Your task to perform on an android device: What's on my calendar today? Image 0: 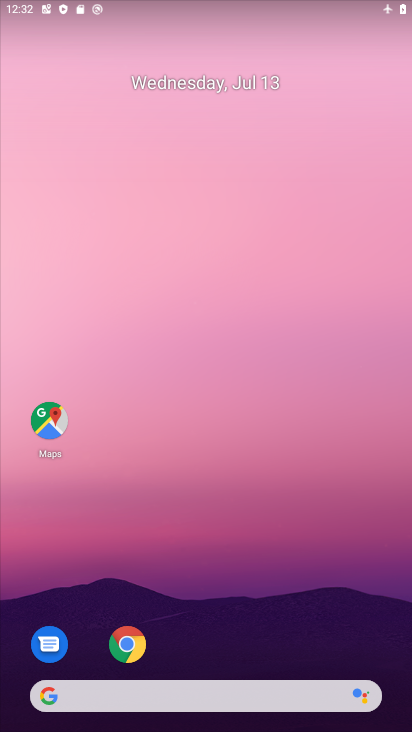
Step 0: drag from (267, 648) to (223, 170)
Your task to perform on an android device: What's on my calendar today? Image 1: 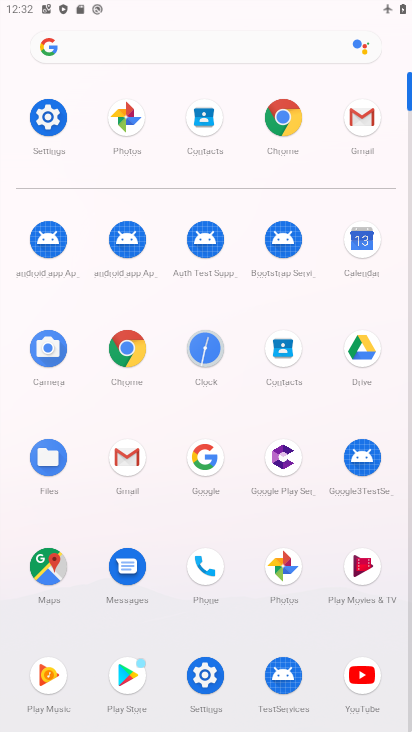
Step 1: click (365, 231)
Your task to perform on an android device: What's on my calendar today? Image 2: 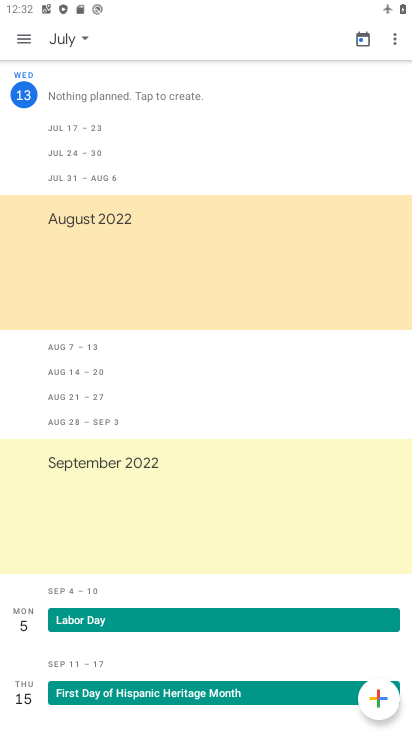
Step 2: click (103, 117)
Your task to perform on an android device: What's on my calendar today? Image 3: 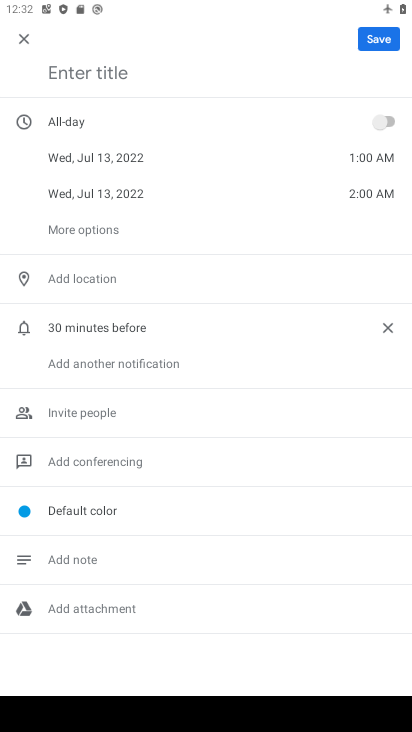
Step 3: click (27, 38)
Your task to perform on an android device: What's on my calendar today? Image 4: 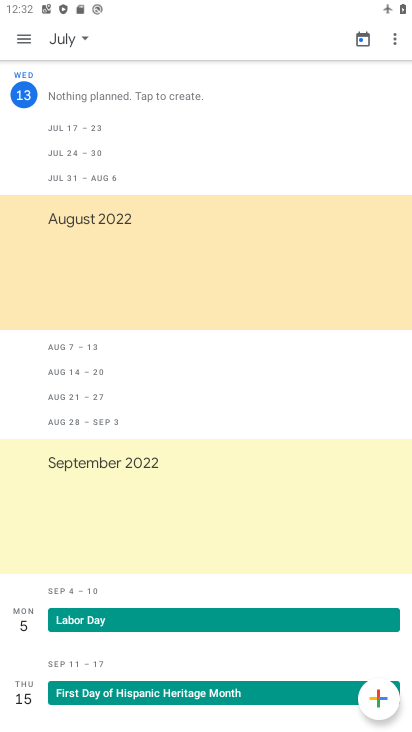
Step 4: click (34, 97)
Your task to perform on an android device: What's on my calendar today? Image 5: 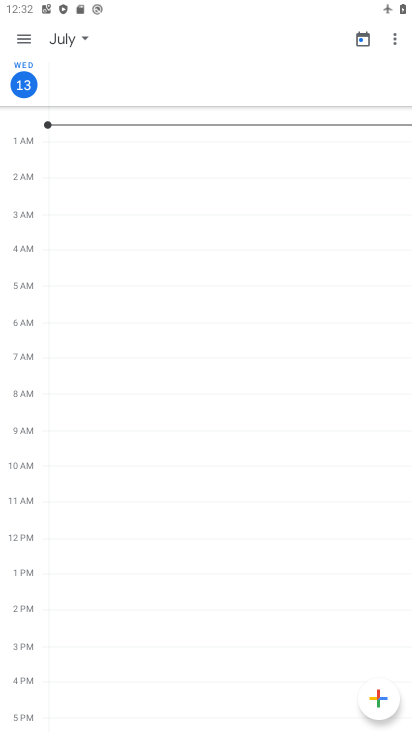
Step 5: task complete